Your task to perform on an android device: Open the calendar app, open the side menu, and click the "Day" option Image 0: 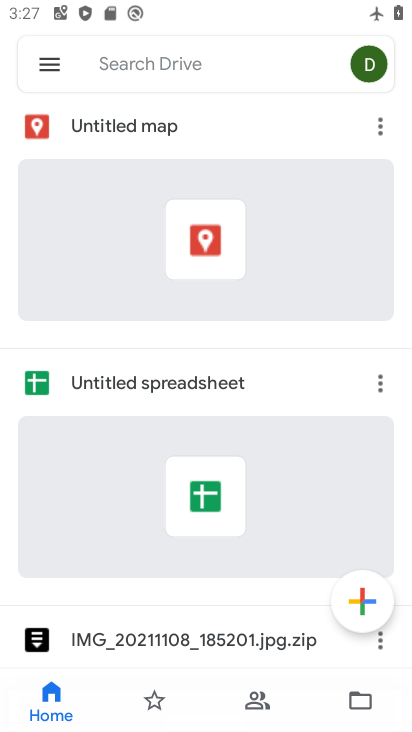
Step 0: press home button
Your task to perform on an android device: Open the calendar app, open the side menu, and click the "Day" option Image 1: 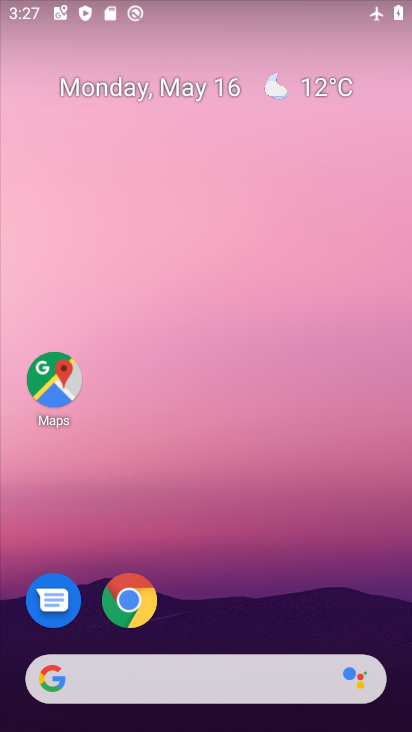
Step 1: drag from (245, 679) to (251, 35)
Your task to perform on an android device: Open the calendar app, open the side menu, and click the "Day" option Image 2: 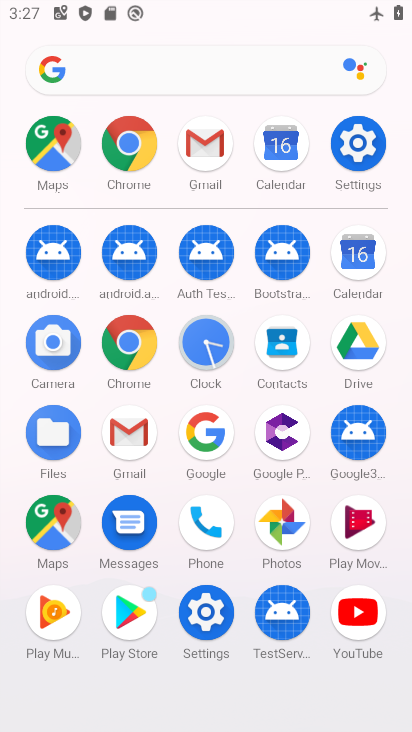
Step 2: click (355, 265)
Your task to perform on an android device: Open the calendar app, open the side menu, and click the "Day" option Image 3: 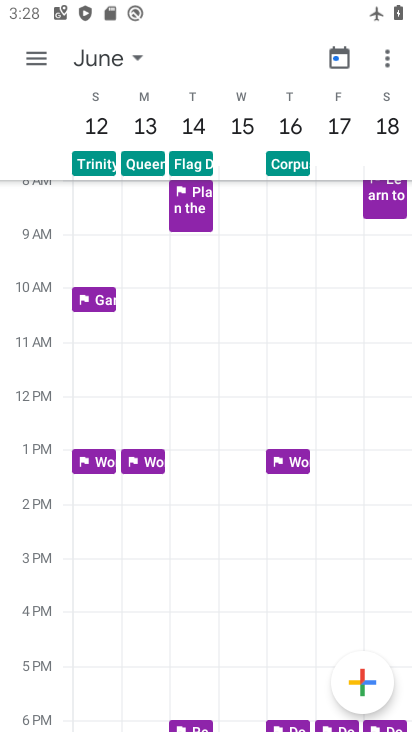
Step 3: click (36, 50)
Your task to perform on an android device: Open the calendar app, open the side menu, and click the "Day" option Image 4: 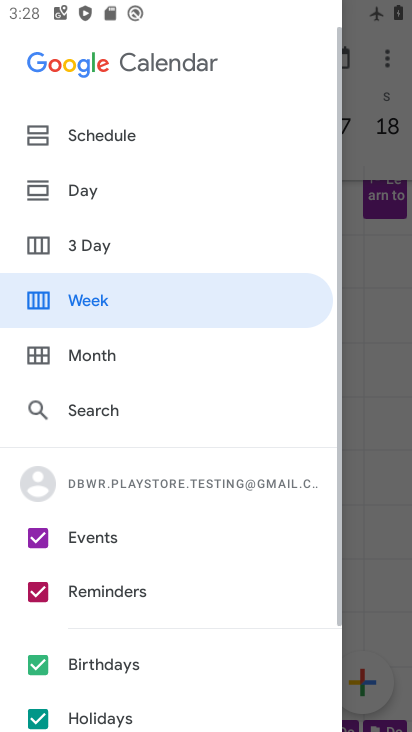
Step 4: click (67, 202)
Your task to perform on an android device: Open the calendar app, open the side menu, and click the "Day" option Image 5: 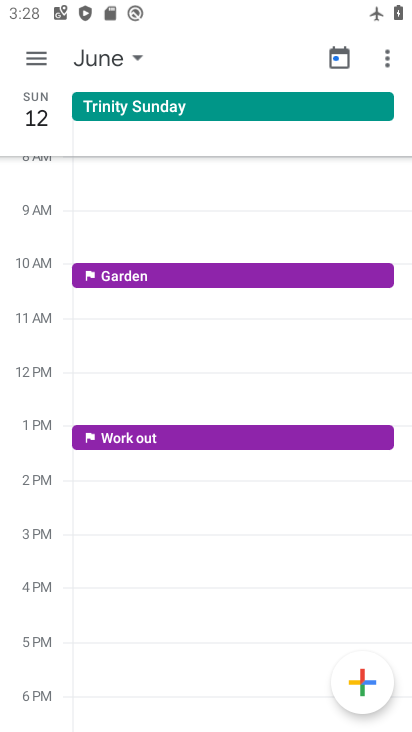
Step 5: task complete